Your task to perform on an android device: See recent photos Image 0: 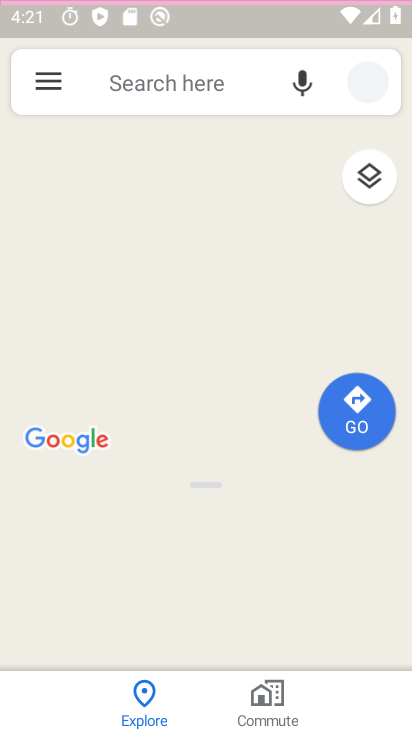
Step 0: drag from (177, 576) to (216, 19)
Your task to perform on an android device: See recent photos Image 1: 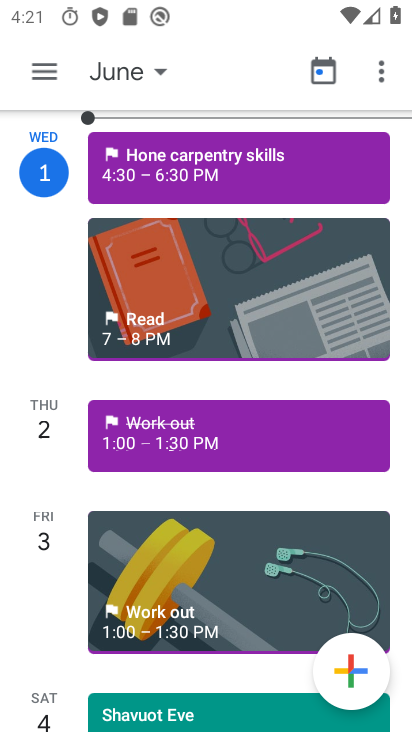
Step 1: press home button
Your task to perform on an android device: See recent photos Image 2: 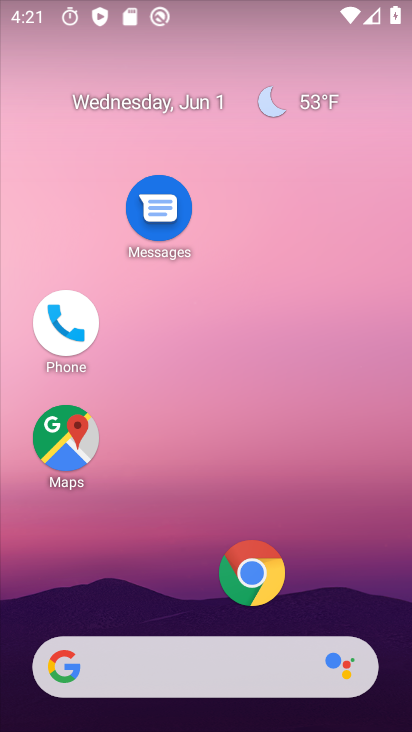
Step 2: drag from (149, 599) to (255, 41)
Your task to perform on an android device: See recent photos Image 3: 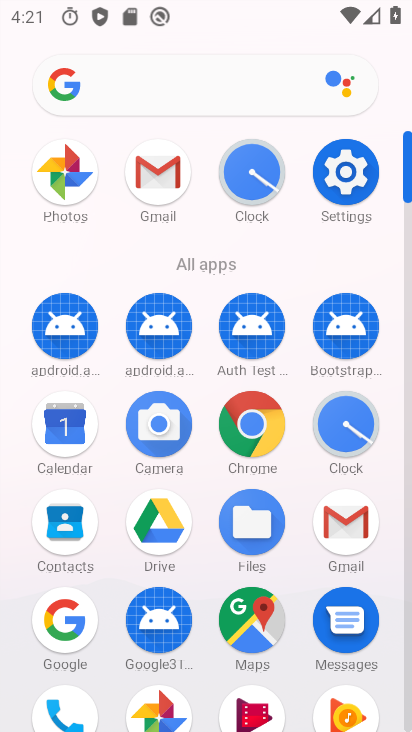
Step 3: click (89, 168)
Your task to perform on an android device: See recent photos Image 4: 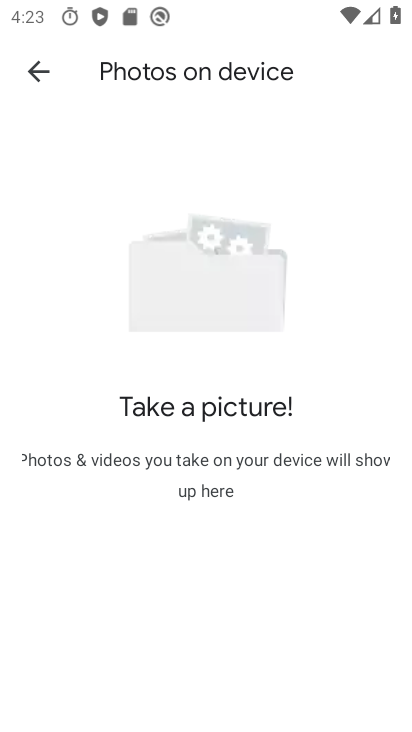
Step 4: click (47, 73)
Your task to perform on an android device: See recent photos Image 5: 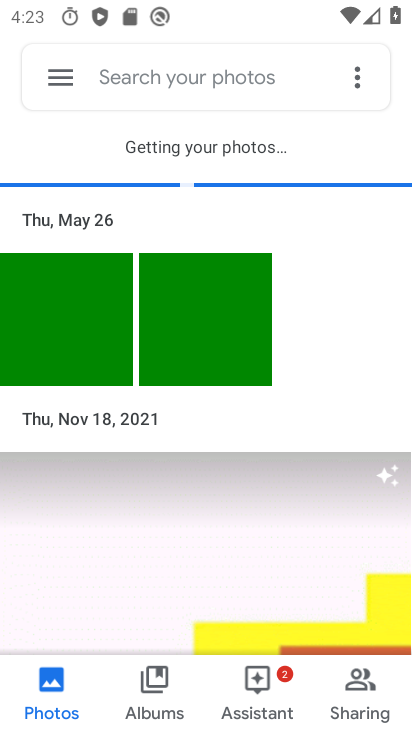
Step 5: task complete